Your task to perform on an android device: Show the shopping cart on walmart.com. Image 0: 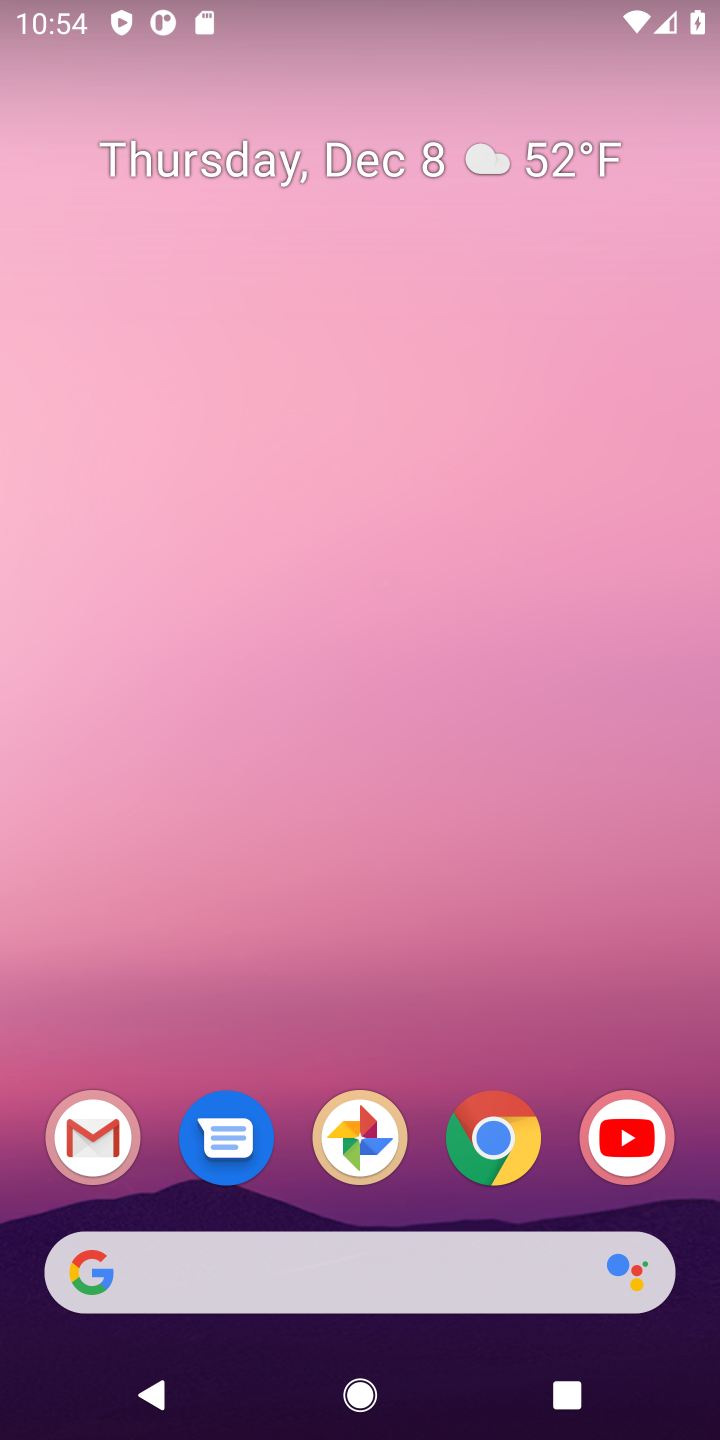
Step 0: click (509, 1138)
Your task to perform on an android device: Show the shopping cart on walmart.com. Image 1: 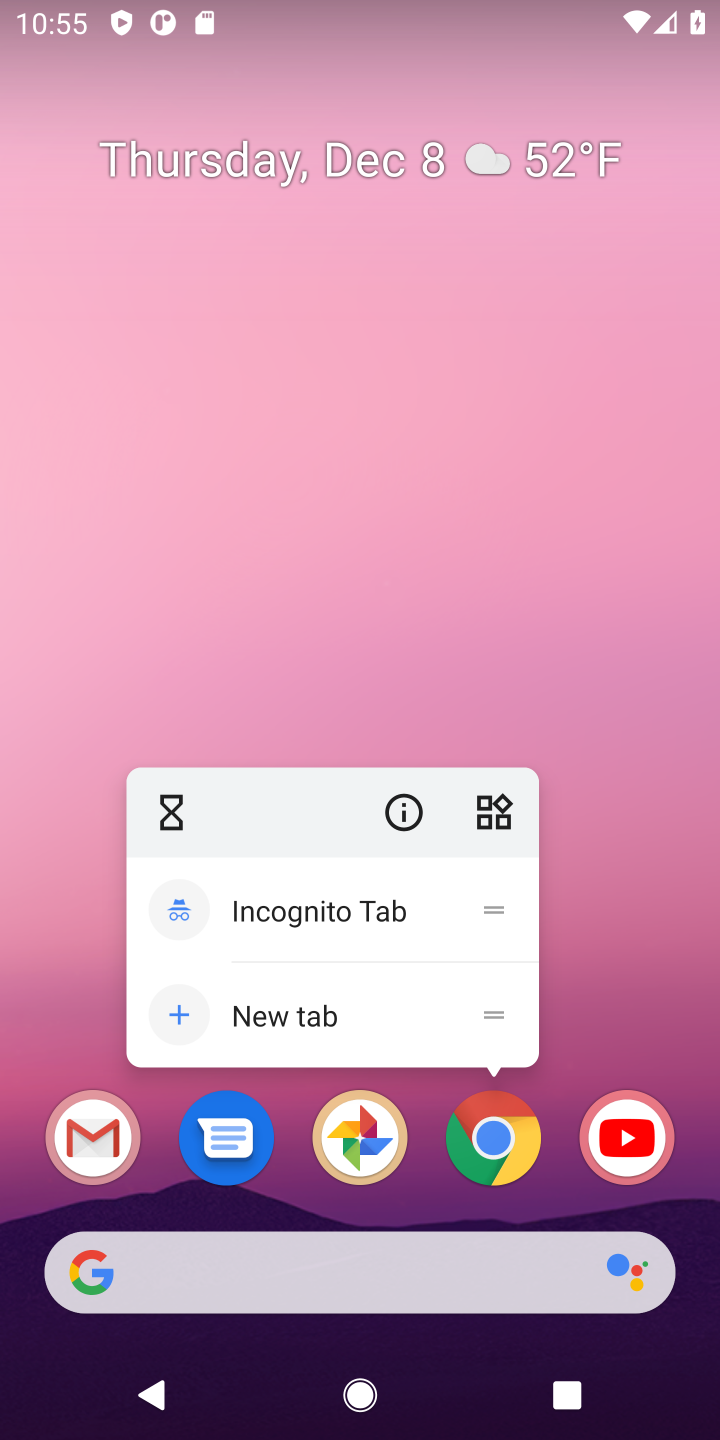
Step 1: click (509, 1138)
Your task to perform on an android device: Show the shopping cart on walmart.com. Image 2: 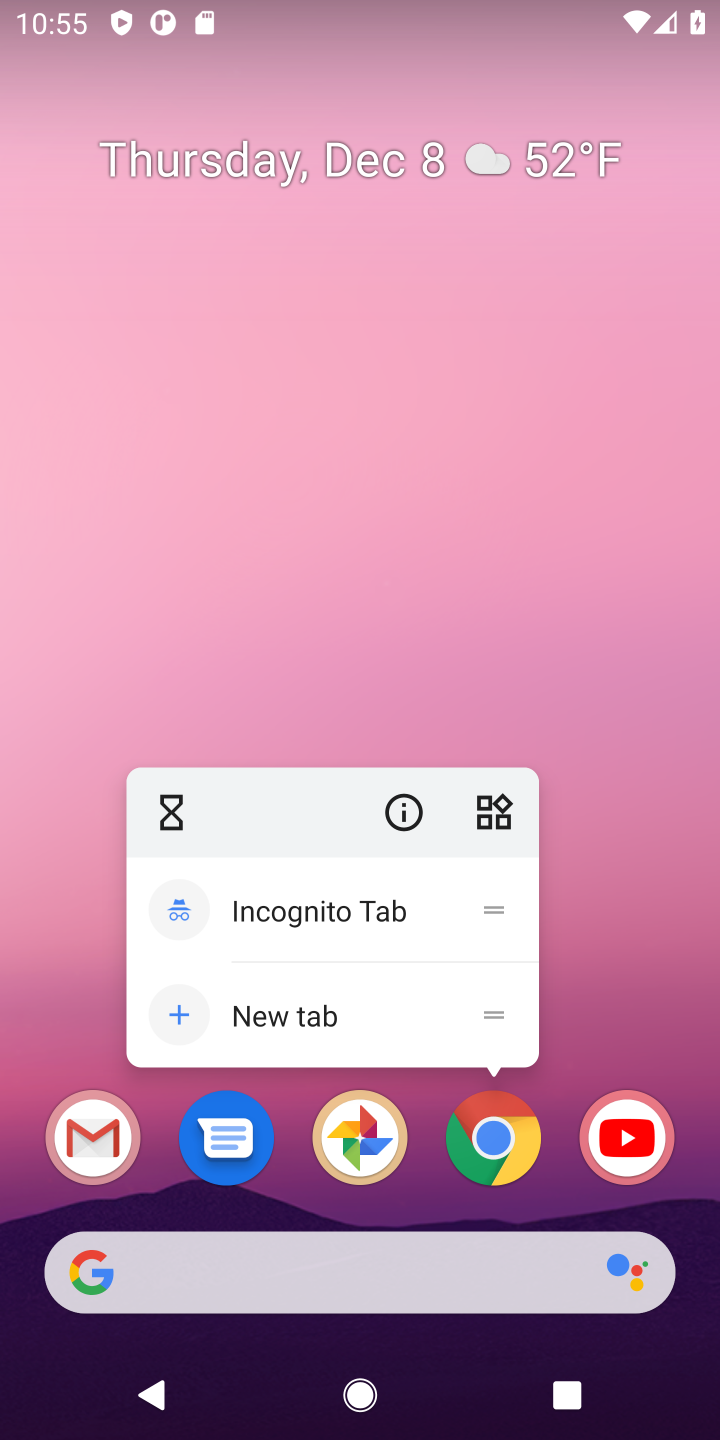
Step 2: click (509, 1138)
Your task to perform on an android device: Show the shopping cart on walmart.com. Image 3: 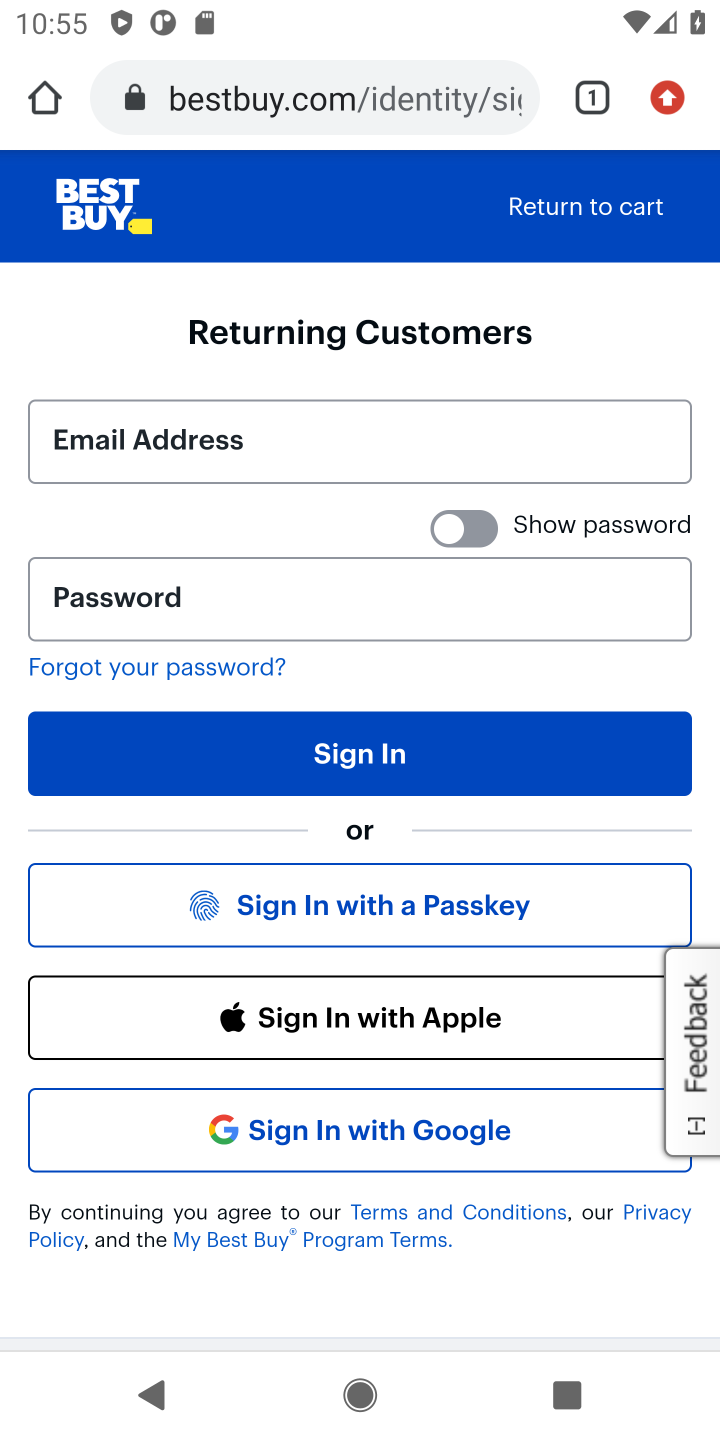
Step 3: click (464, 100)
Your task to perform on an android device: Show the shopping cart on walmart.com. Image 4: 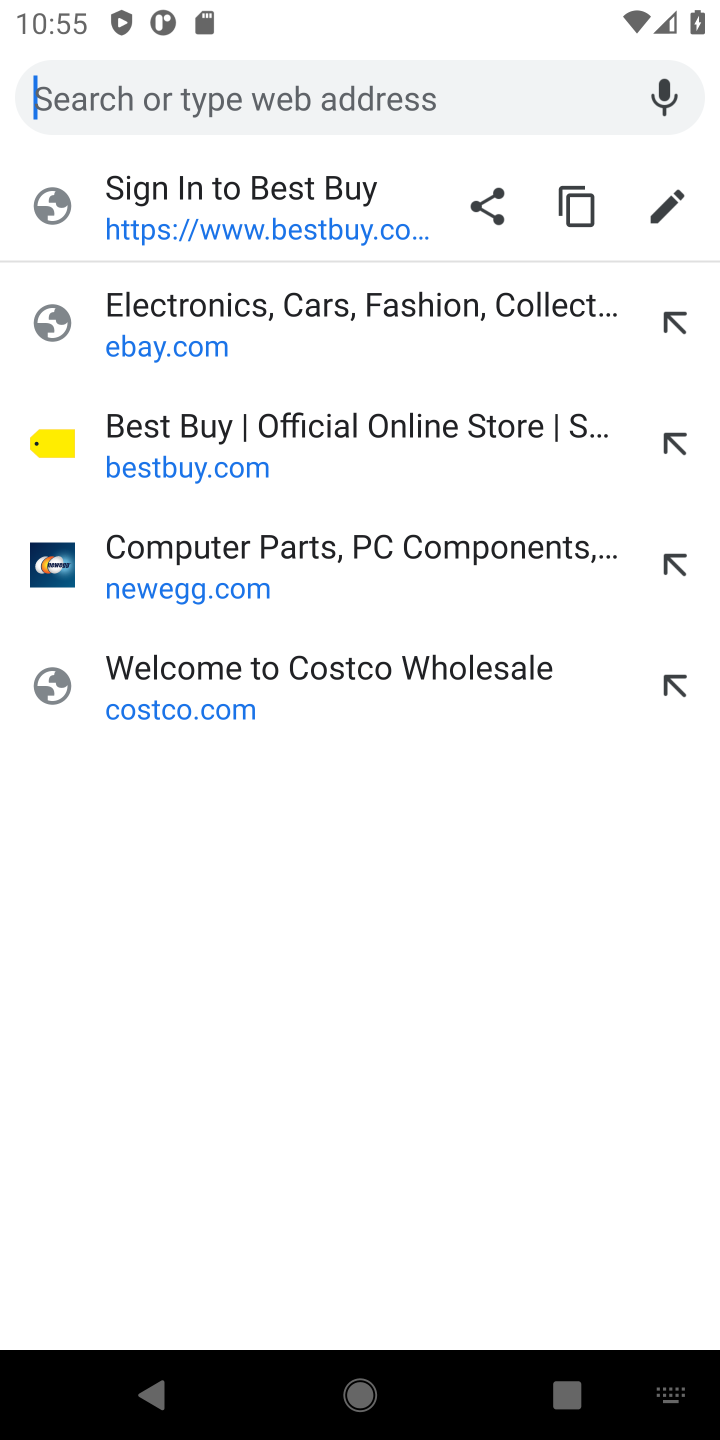
Step 4: type "walmart.com"
Your task to perform on an android device: Show the shopping cart on walmart.com. Image 5: 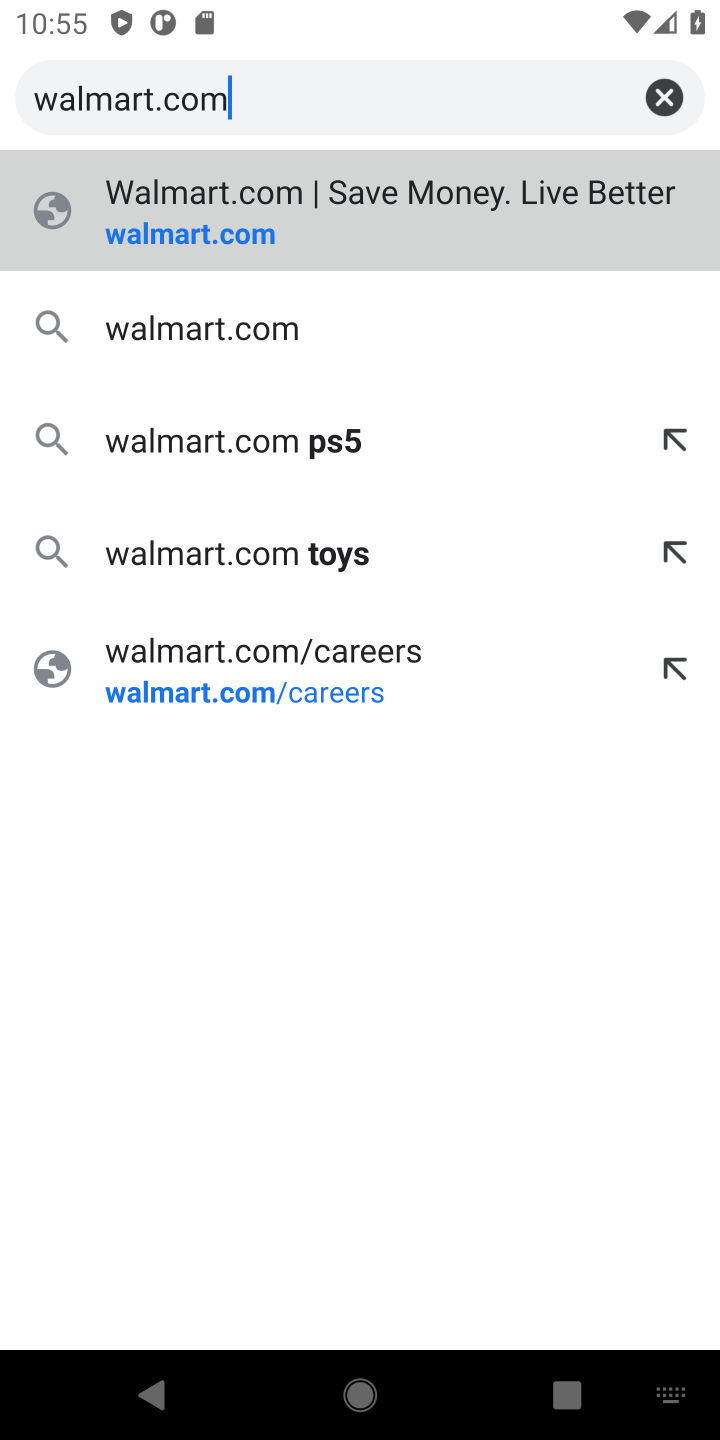
Step 5: click (215, 318)
Your task to perform on an android device: Show the shopping cart on walmart.com. Image 6: 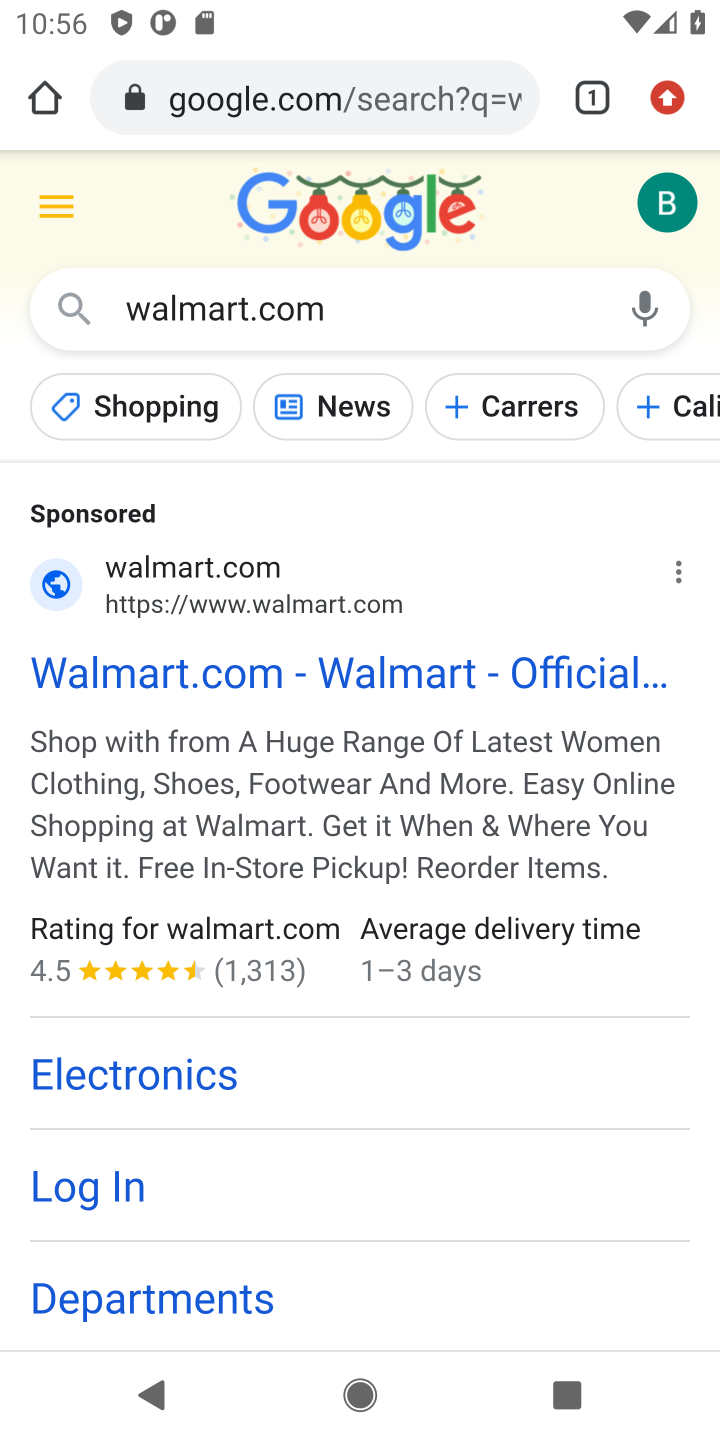
Step 6: click (216, 602)
Your task to perform on an android device: Show the shopping cart on walmart.com. Image 7: 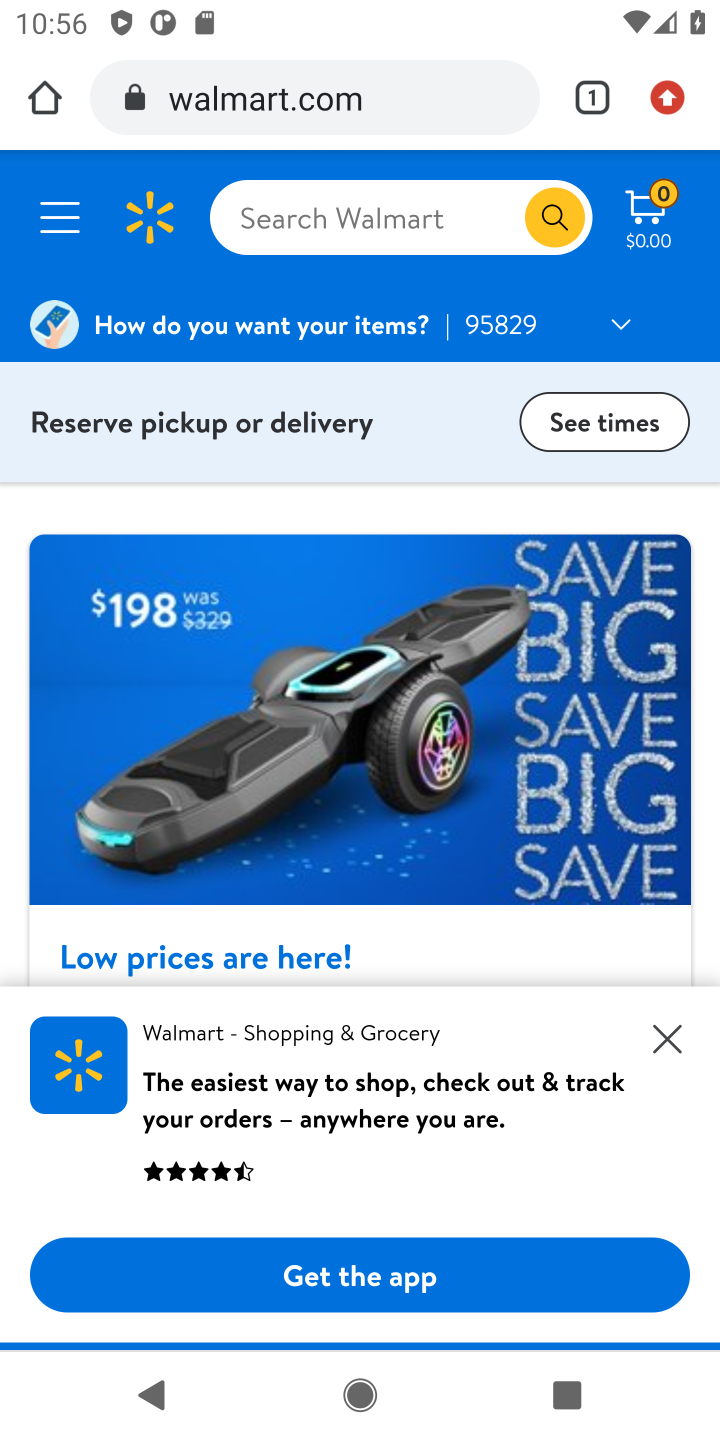
Step 7: click (632, 221)
Your task to perform on an android device: Show the shopping cart on walmart.com. Image 8: 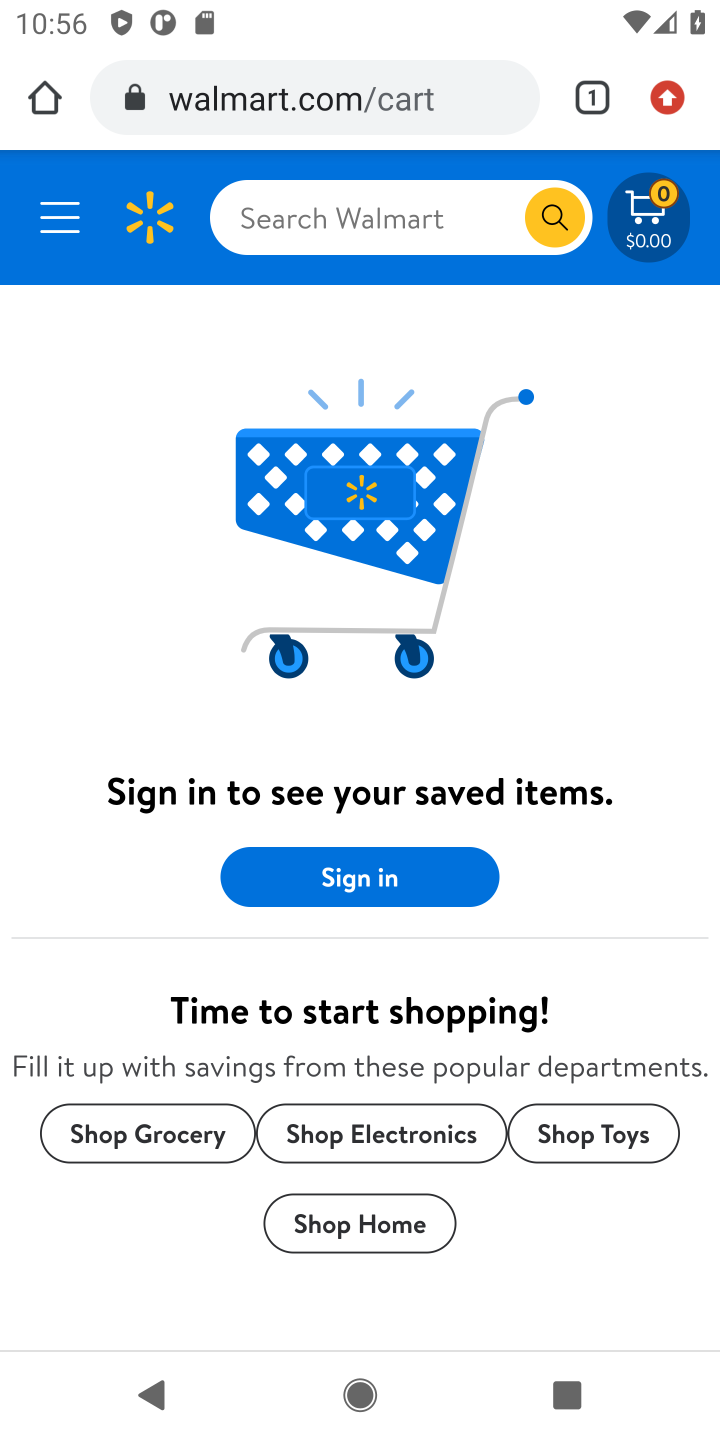
Step 8: task complete